Your task to perform on an android device: set the stopwatch Image 0: 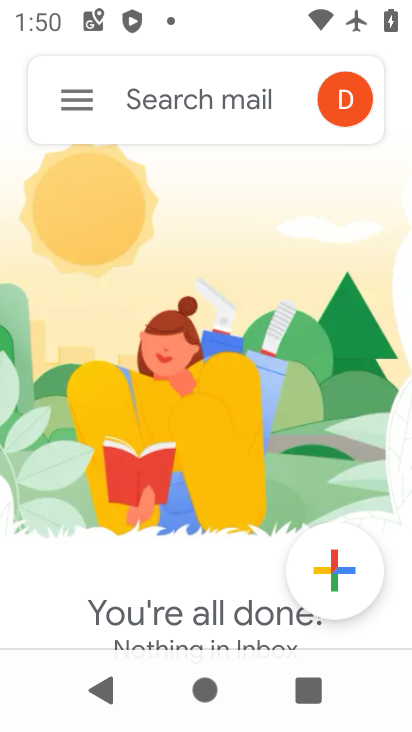
Step 0: press home button
Your task to perform on an android device: set the stopwatch Image 1: 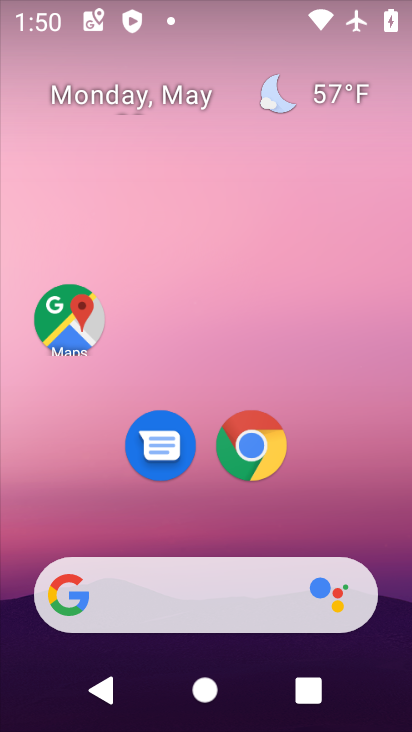
Step 1: drag from (228, 516) to (245, 177)
Your task to perform on an android device: set the stopwatch Image 2: 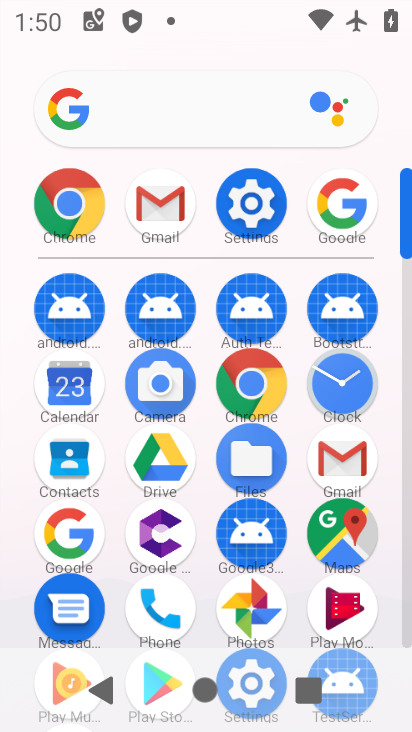
Step 2: click (353, 377)
Your task to perform on an android device: set the stopwatch Image 3: 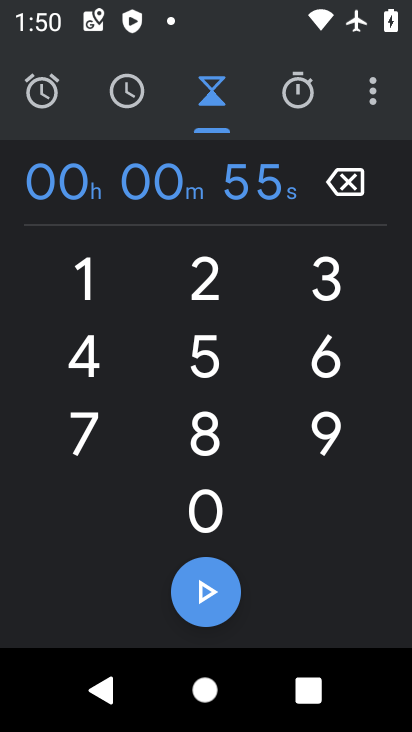
Step 3: click (279, 103)
Your task to perform on an android device: set the stopwatch Image 4: 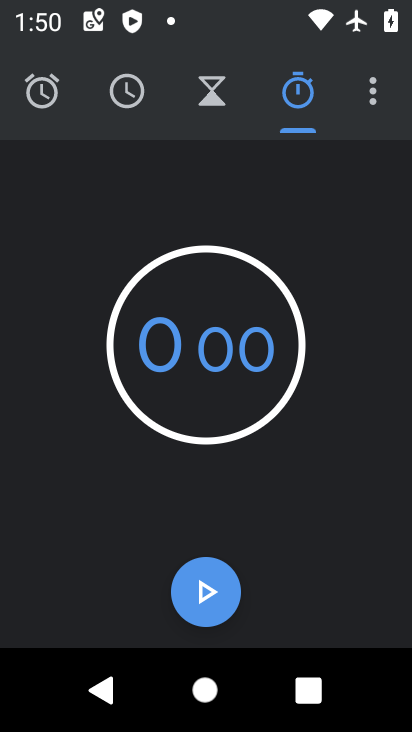
Step 4: click (207, 570)
Your task to perform on an android device: set the stopwatch Image 5: 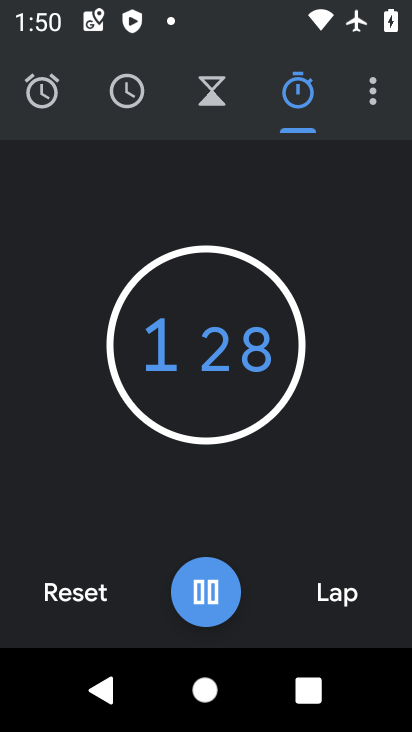
Step 5: click (205, 570)
Your task to perform on an android device: set the stopwatch Image 6: 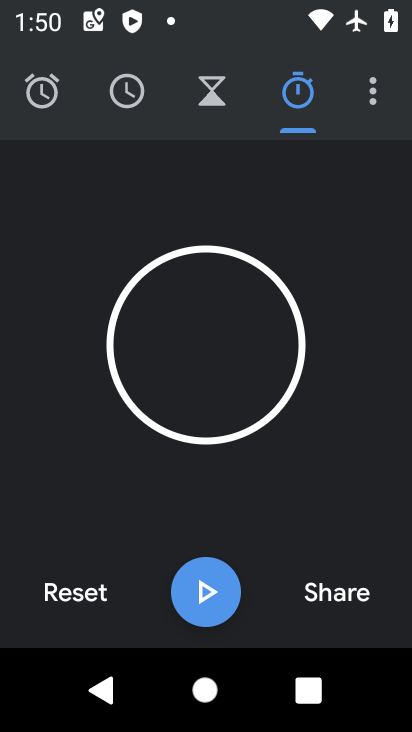
Step 6: task complete